Your task to perform on an android device: Search for Italian restaurants on Maps Image 0: 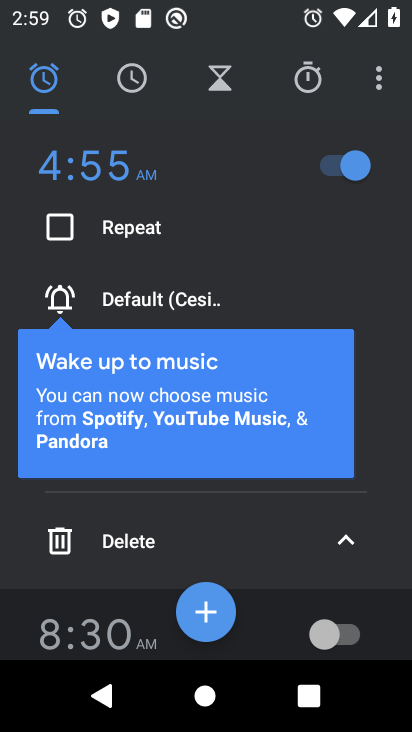
Step 0: press home button
Your task to perform on an android device: Search for Italian restaurants on Maps Image 1: 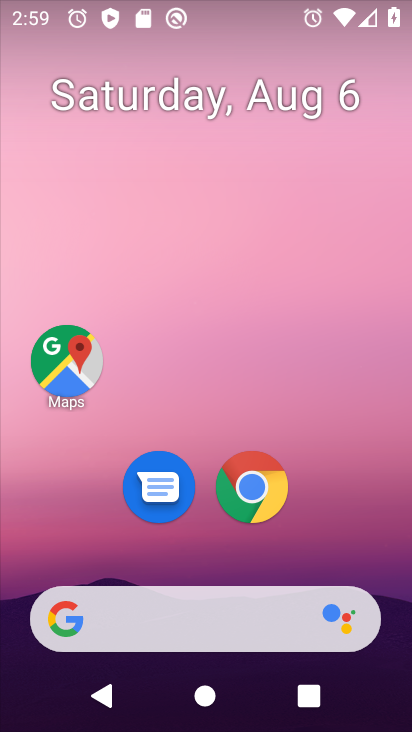
Step 1: click (79, 371)
Your task to perform on an android device: Search for Italian restaurants on Maps Image 2: 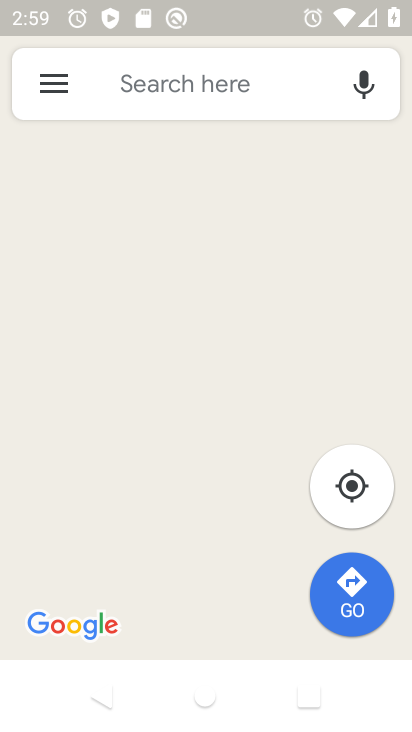
Step 2: click (200, 88)
Your task to perform on an android device: Search for Italian restaurants on Maps Image 3: 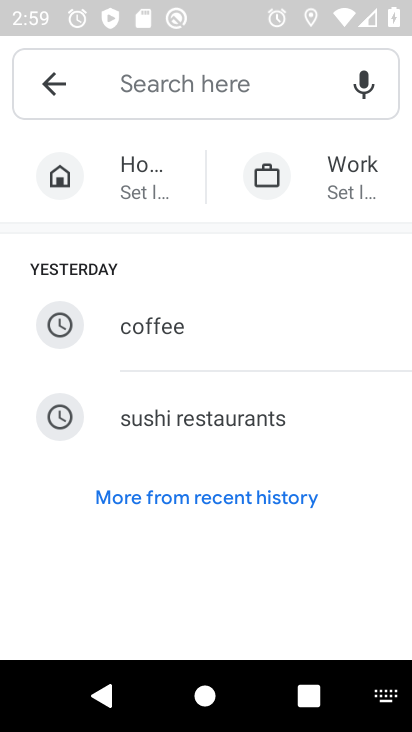
Step 3: type "italian restaurants"
Your task to perform on an android device: Search for Italian restaurants on Maps Image 4: 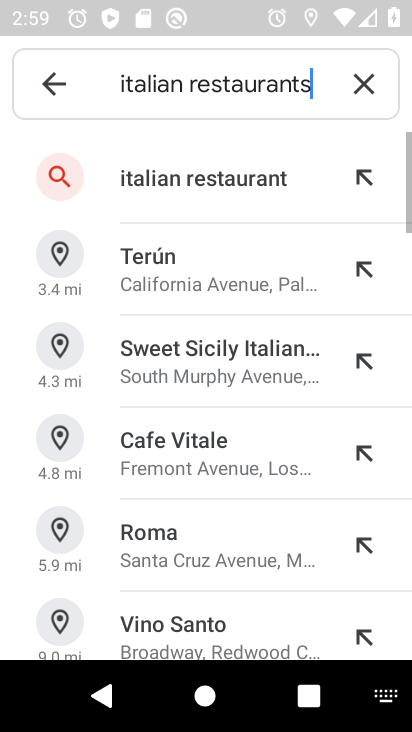
Step 4: click (228, 177)
Your task to perform on an android device: Search for Italian restaurants on Maps Image 5: 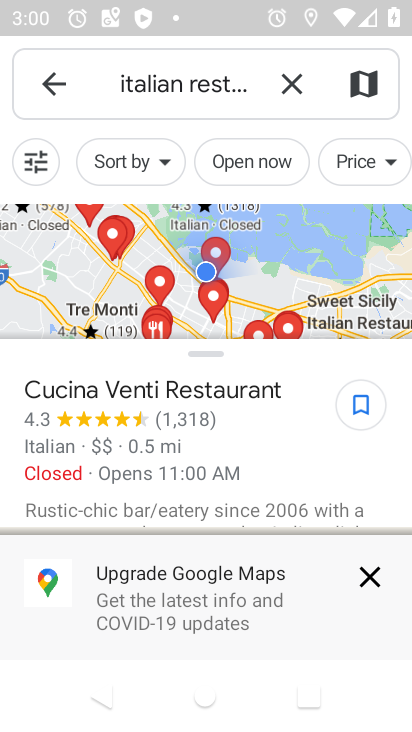
Step 5: task complete